Your task to perform on an android device: Open the web browser Image 0: 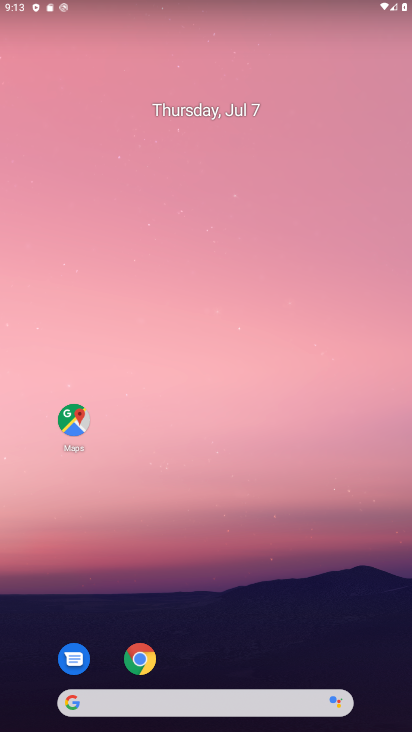
Step 0: click (143, 651)
Your task to perform on an android device: Open the web browser Image 1: 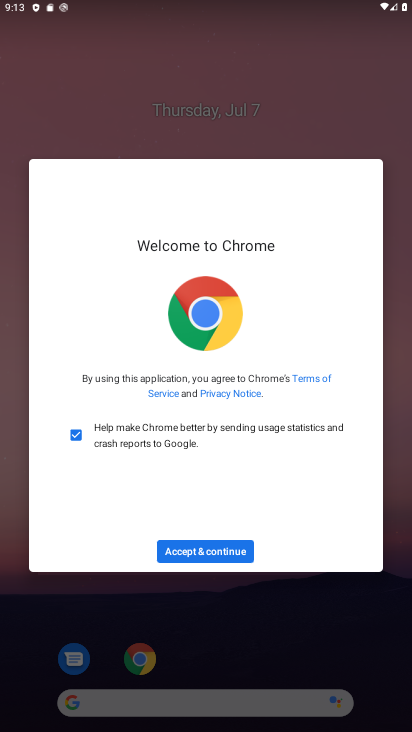
Step 1: click (223, 558)
Your task to perform on an android device: Open the web browser Image 2: 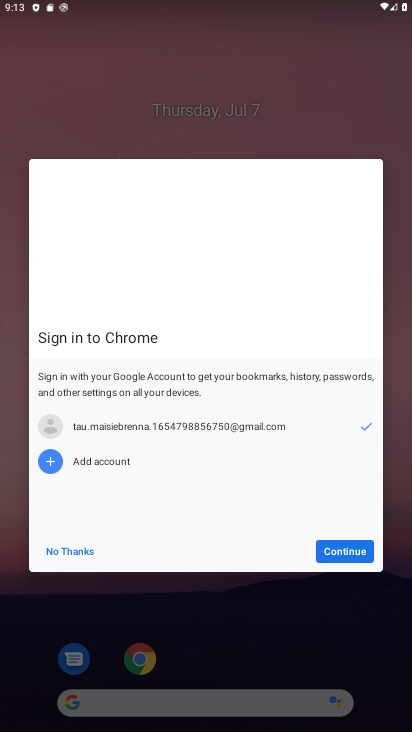
Step 2: click (345, 551)
Your task to perform on an android device: Open the web browser Image 3: 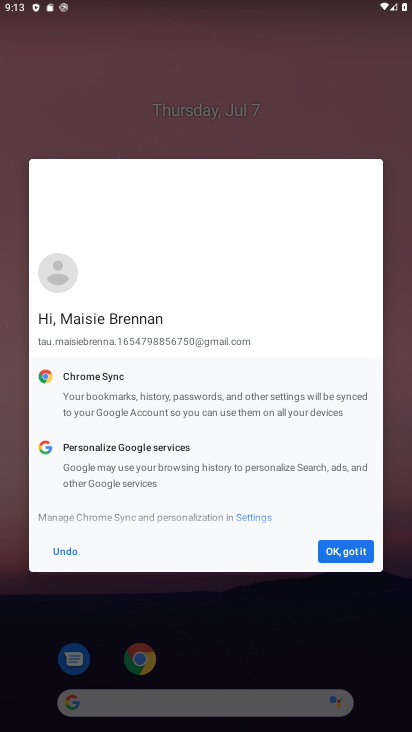
Step 3: click (345, 551)
Your task to perform on an android device: Open the web browser Image 4: 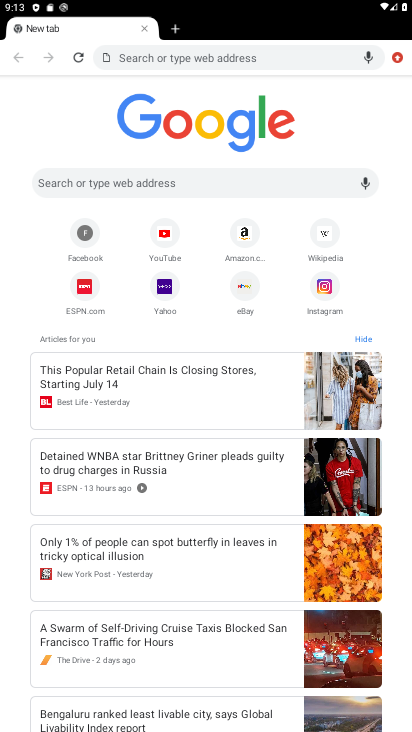
Step 4: task complete